Your task to perform on an android device: Go to Android settings Image 0: 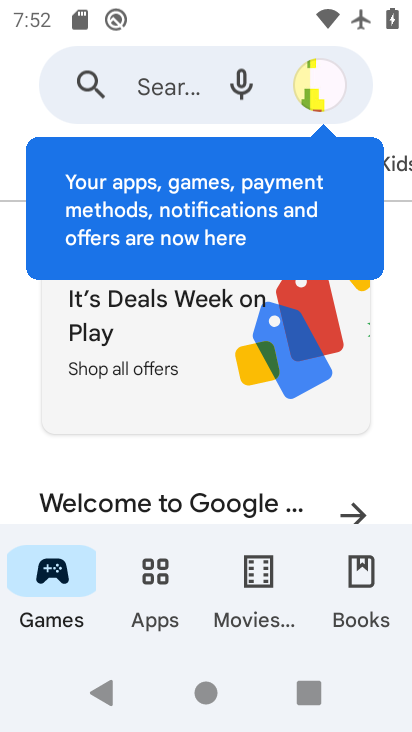
Step 0: press home button
Your task to perform on an android device: Go to Android settings Image 1: 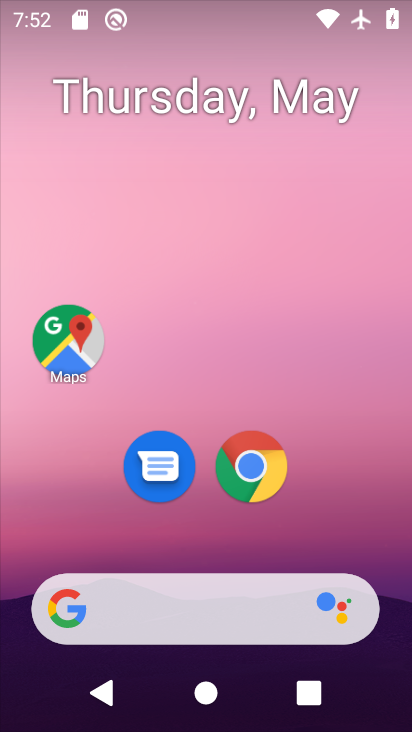
Step 1: drag from (348, 528) to (309, 10)
Your task to perform on an android device: Go to Android settings Image 2: 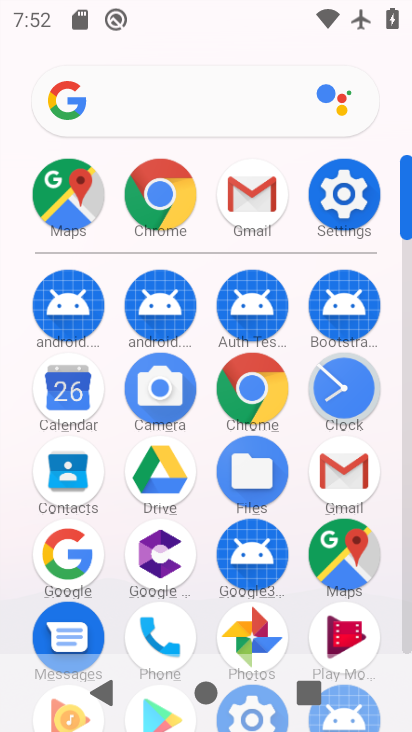
Step 2: click (322, 193)
Your task to perform on an android device: Go to Android settings Image 3: 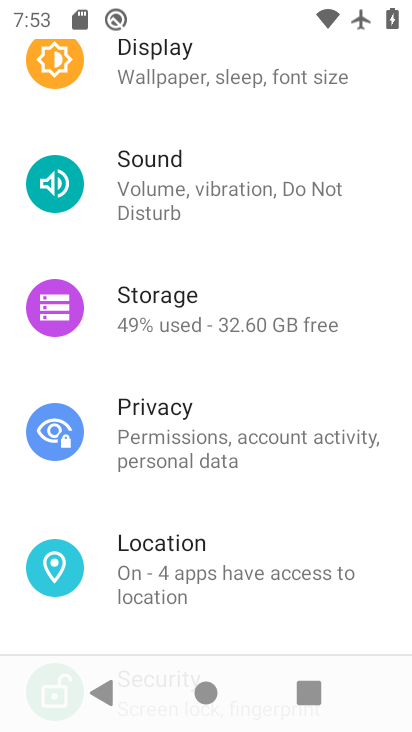
Step 3: task complete